Your task to perform on an android device: Open Android settings Image 0: 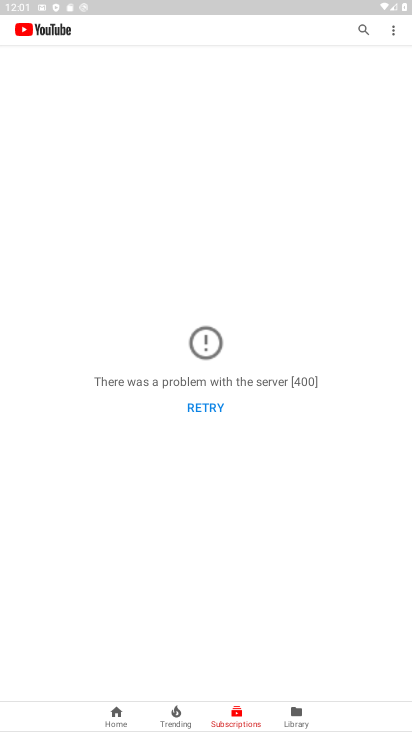
Step 0: press home button
Your task to perform on an android device: Open Android settings Image 1: 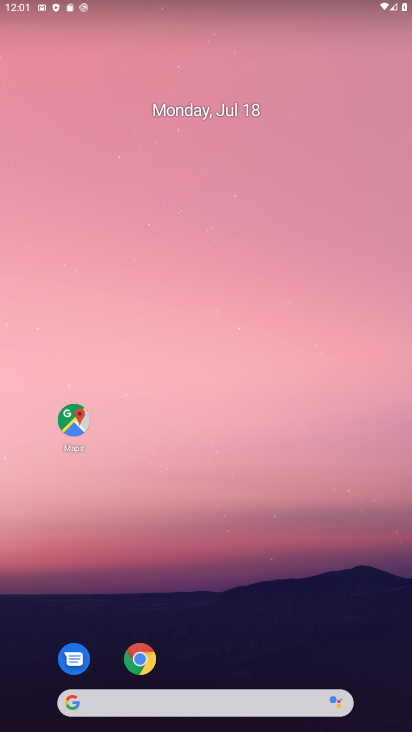
Step 1: drag from (254, 681) to (308, 34)
Your task to perform on an android device: Open Android settings Image 2: 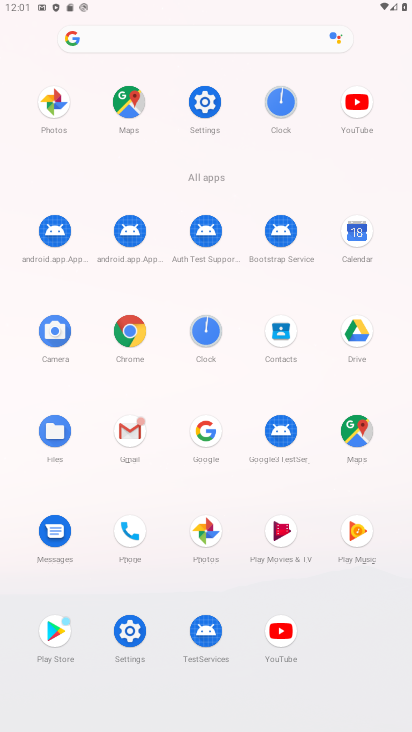
Step 2: click (142, 638)
Your task to perform on an android device: Open Android settings Image 3: 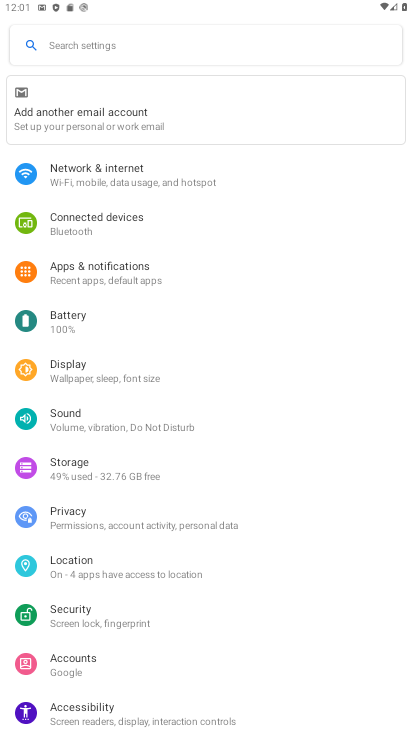
Step 3: task complete